Your task to perform on an android device: Open sound settings Image 0: 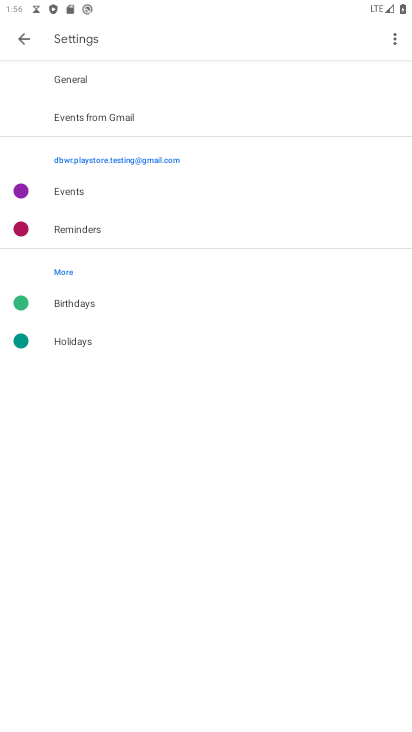
Step 0: press home button
Your task to perform on an android device: Open sound settings Image 1: 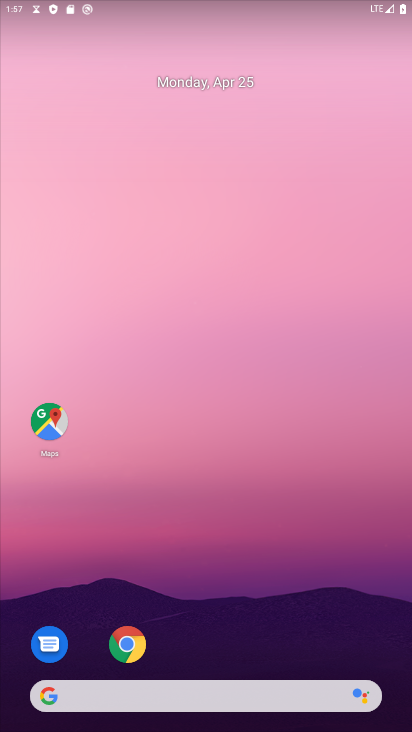
Step 1: drag from (362, 610) to (363, 93)
Your task to perform on an android device: Open sound settings Image 2: 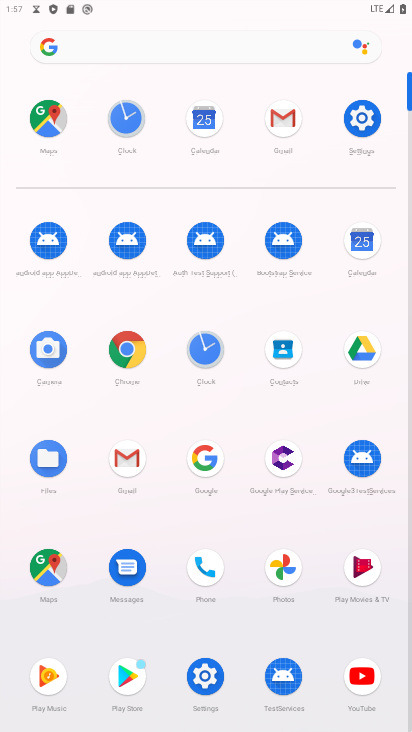
Step 2: click (353, 129)
Your task to perform on an android device: Open sound settings Image 3: 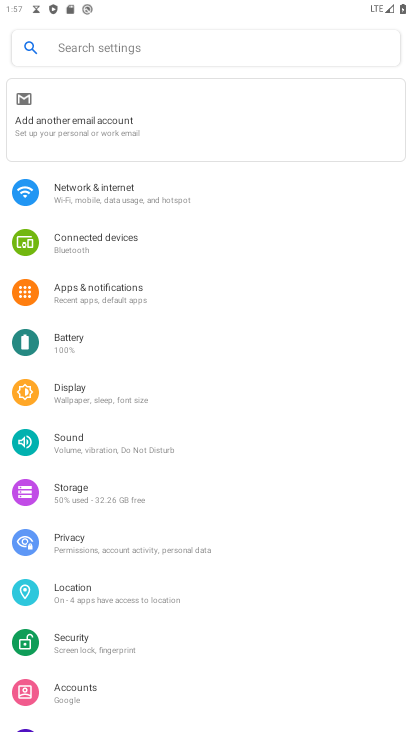
Step 3: click (66, 445)
Your task to perform on an android device: Open sound settings Image 4: 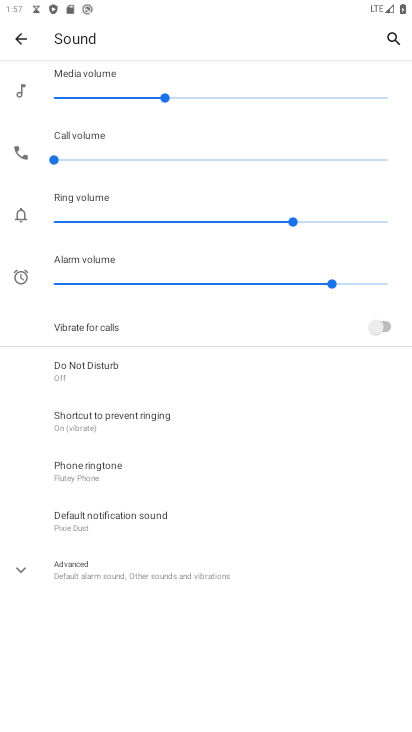
Step 4: task complete